Your task to perform on an android device: Clear the cart on newegg. Image 0: 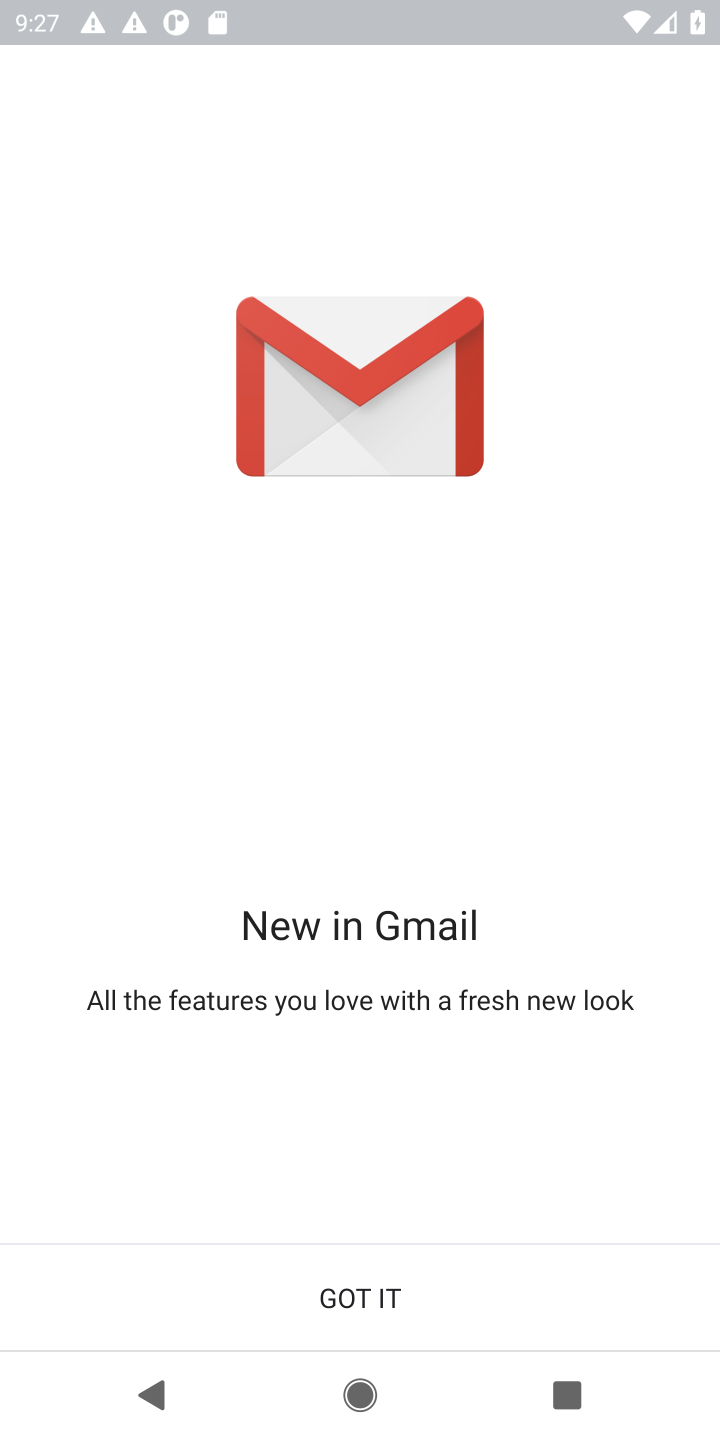
Step 0: press home button
Your task to perform on an android device: Clear the cart on newegg. Image 1: 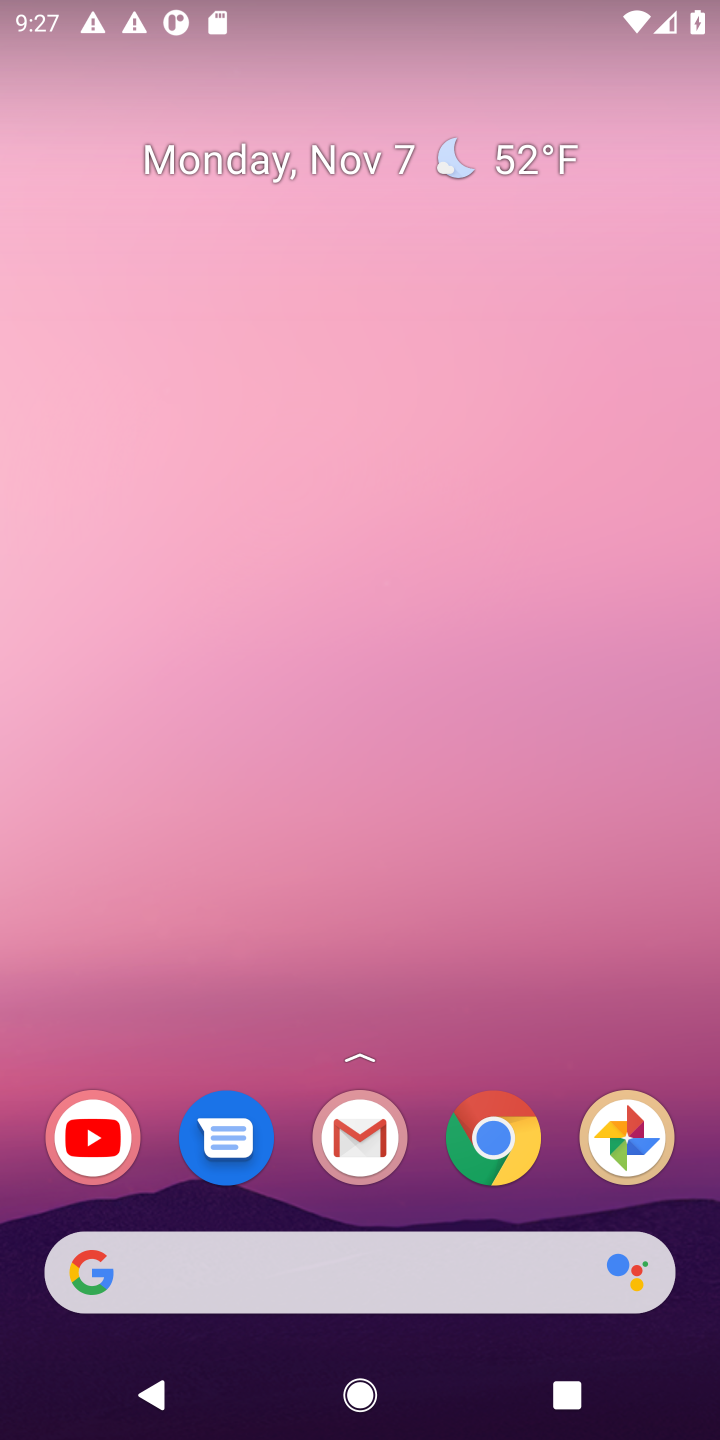
Step 1: click (484, 1128)
Your task to perform on an android device: Clear the cart on newegg. Image 2: 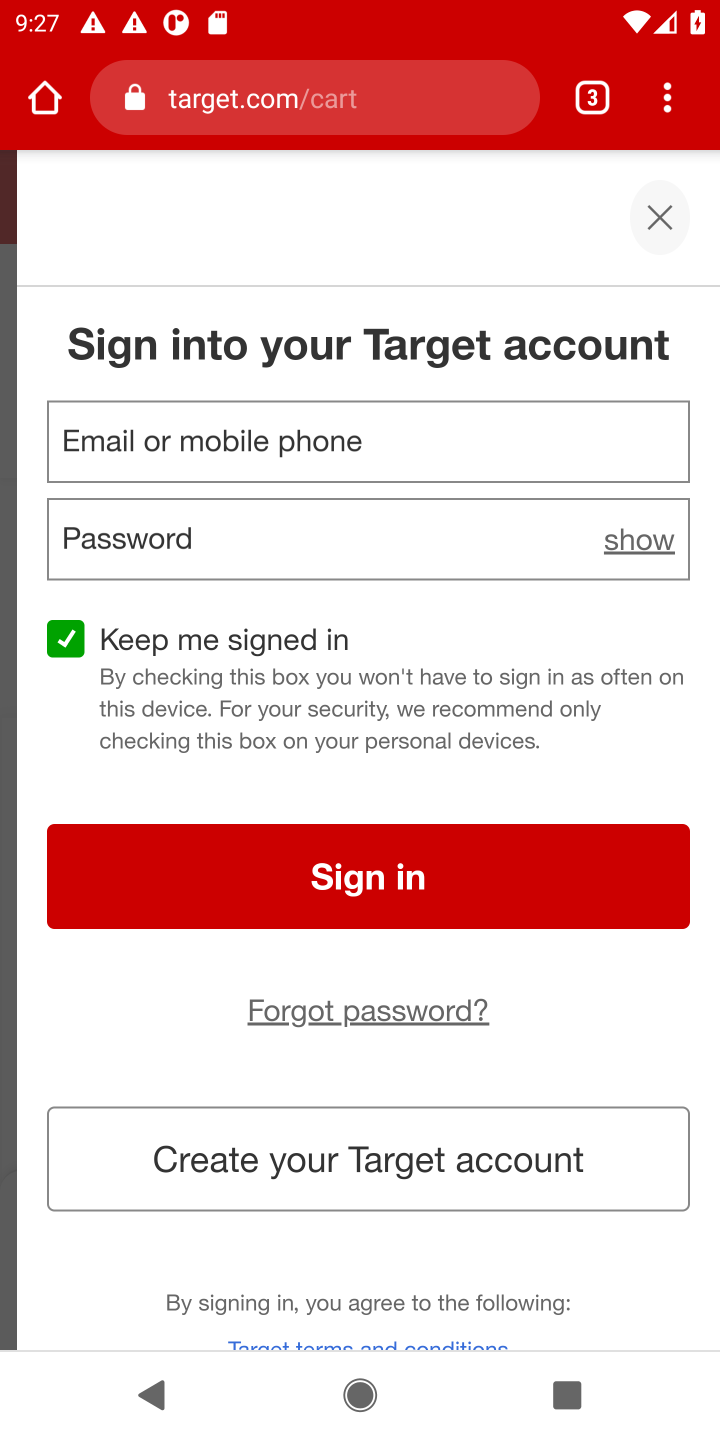
Step 2: click (586, 111)
Your task to perform on an android device: Clear the cart on newegg. Image 3: 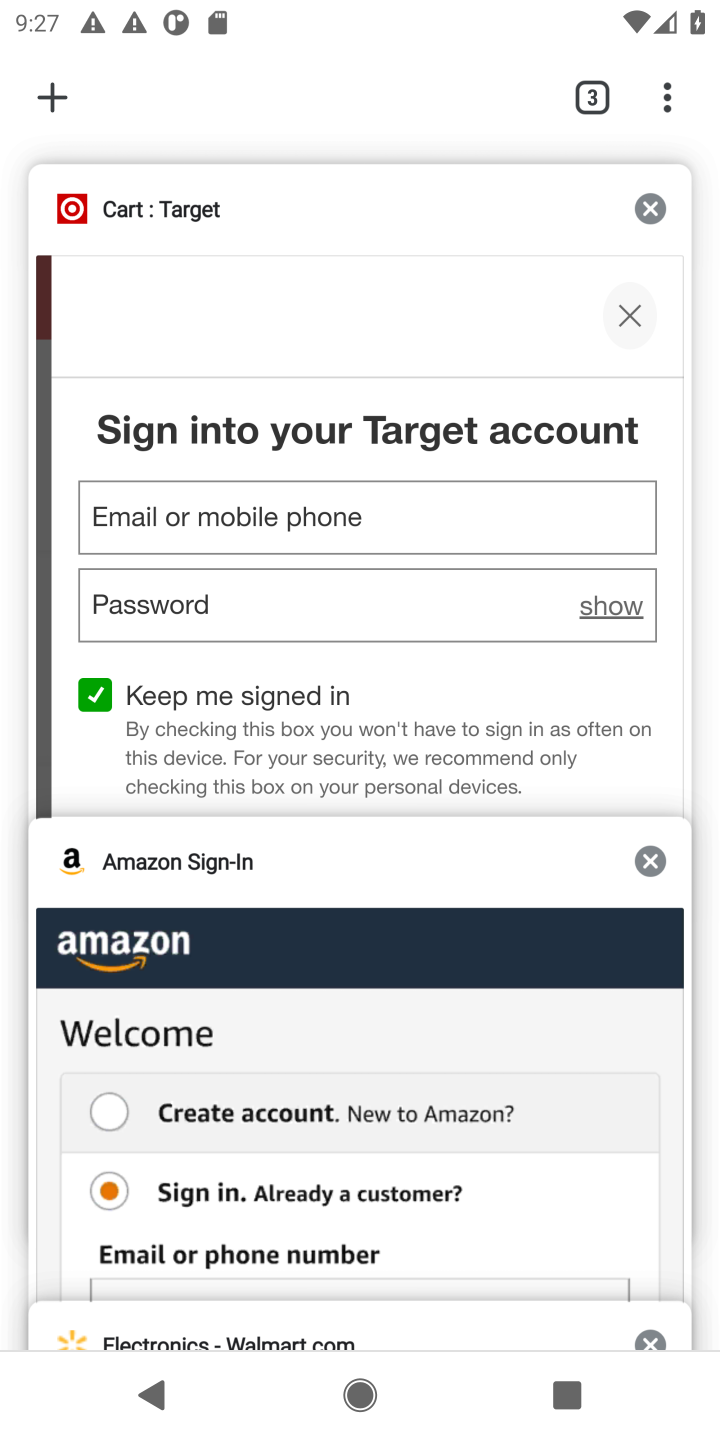
Step 3: click (46, 110)
Your task to perform on an android device: Clear the cart on newegg. Image 4: 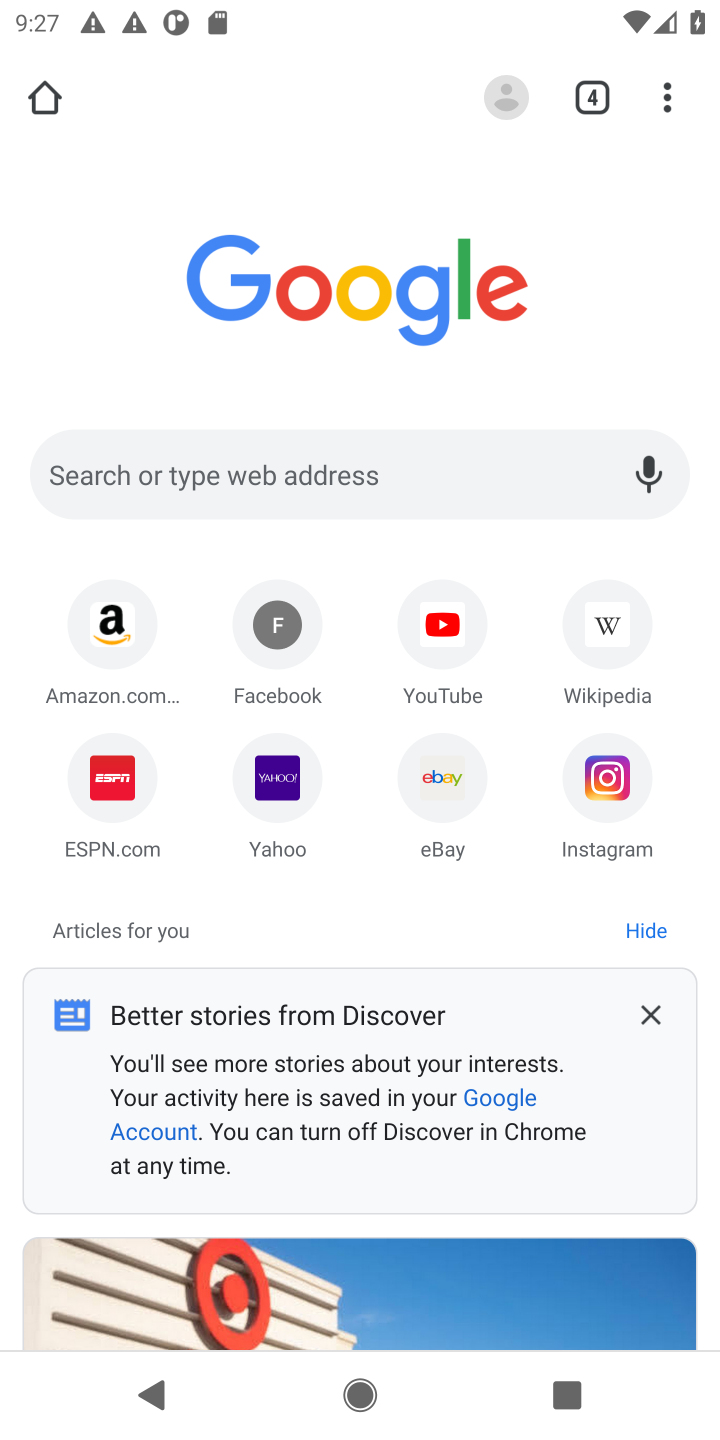
Step 4: click (383, 497)
Your task to perform on an android device: Clear the cart on newegg. Image 5: 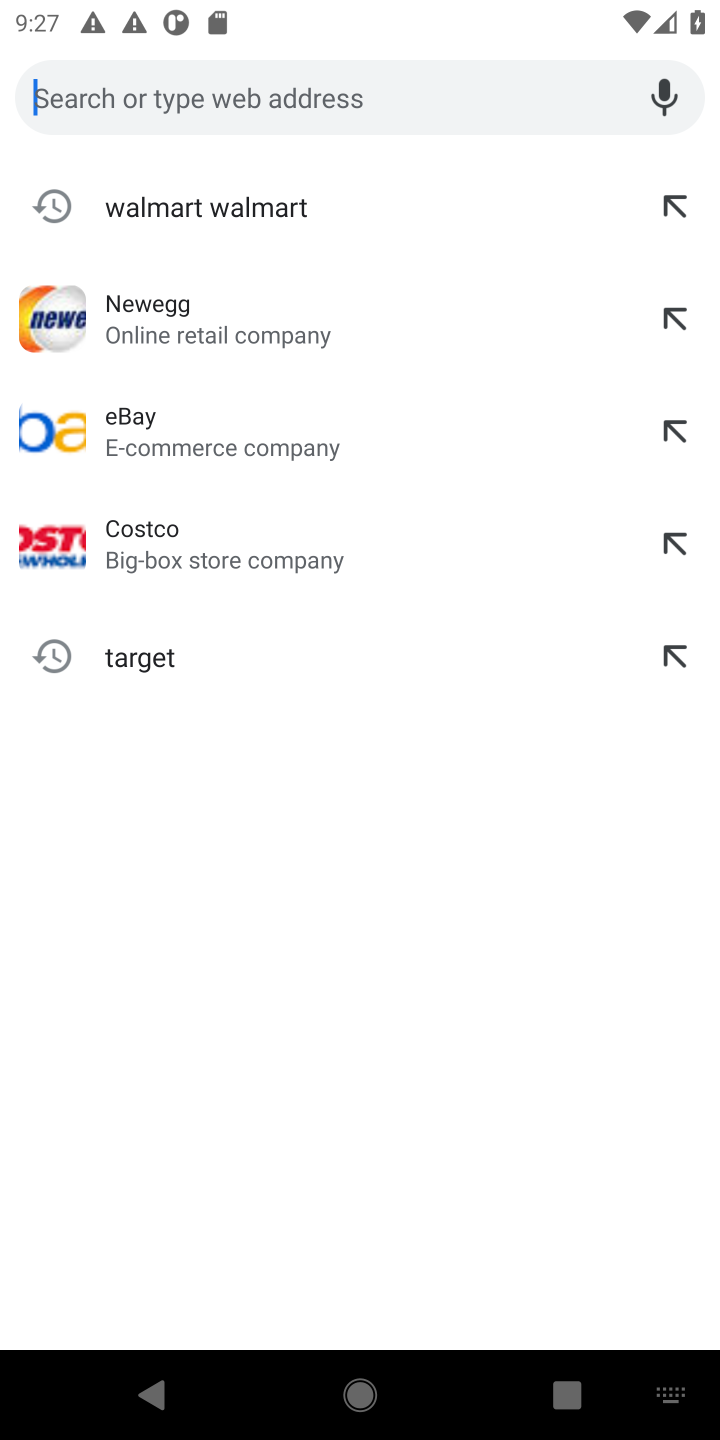
Step 5: type "newegg"
Your task to perform on an android device: Clear the cart on newegg. Image 6: 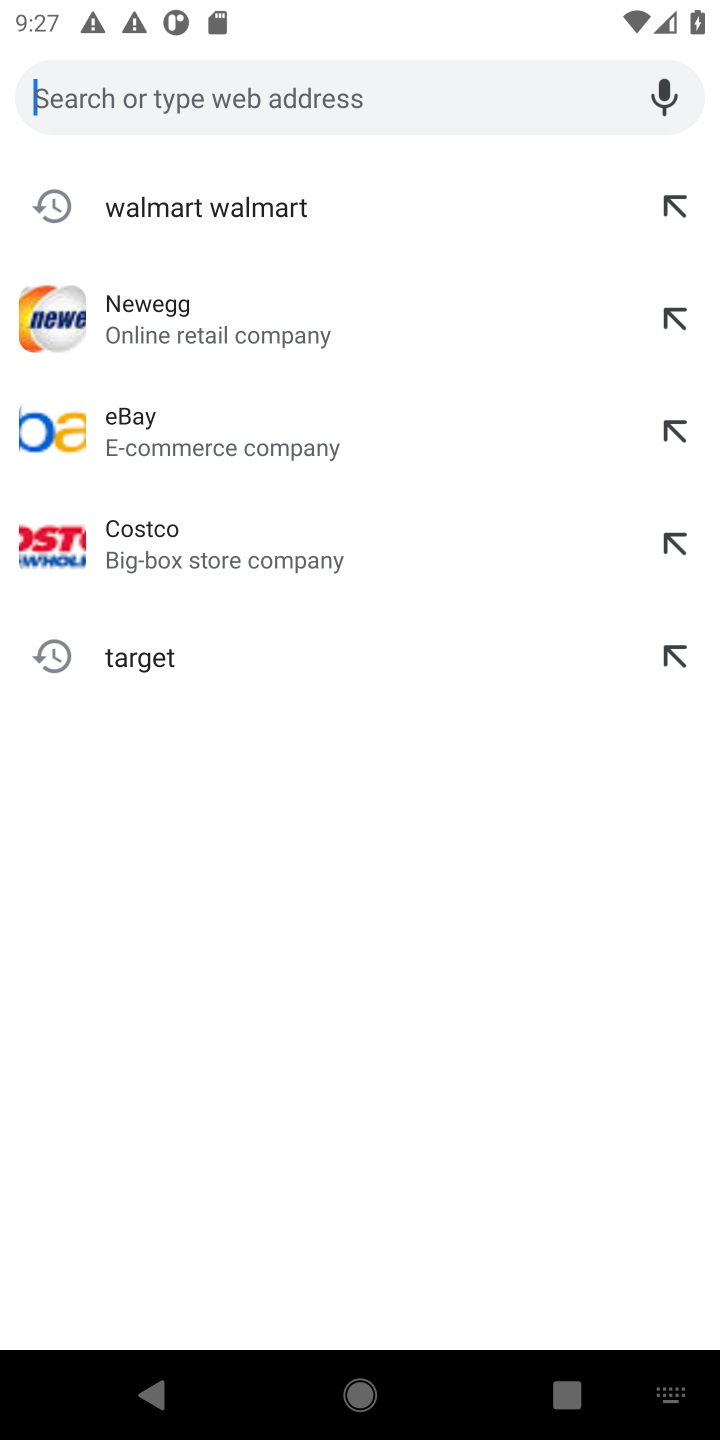
Step 6: click (213, 322)
Your task to perform on an android device: Clear the cart on newegg. Image 7: 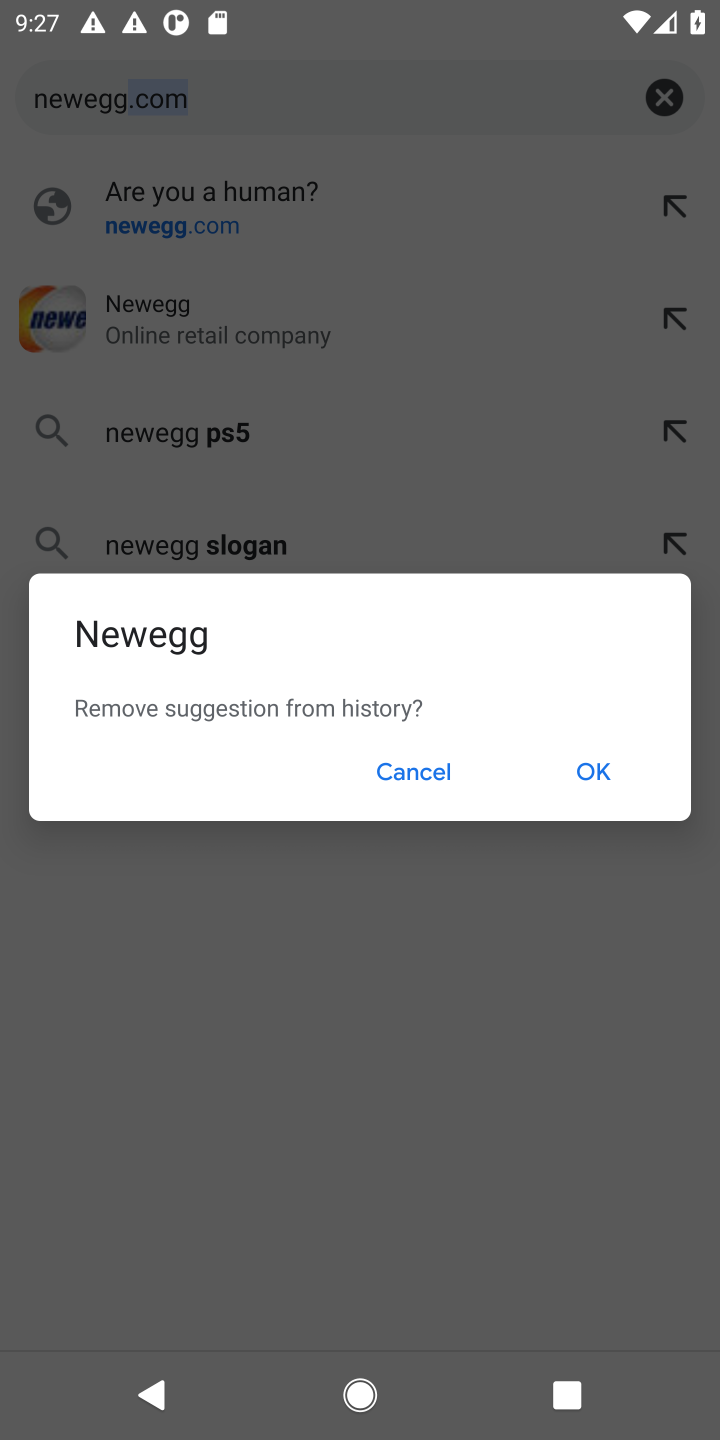
Step 7: click (599, 782)
Your task to perform on an android device: Clear the cart on newegg. Image 8: 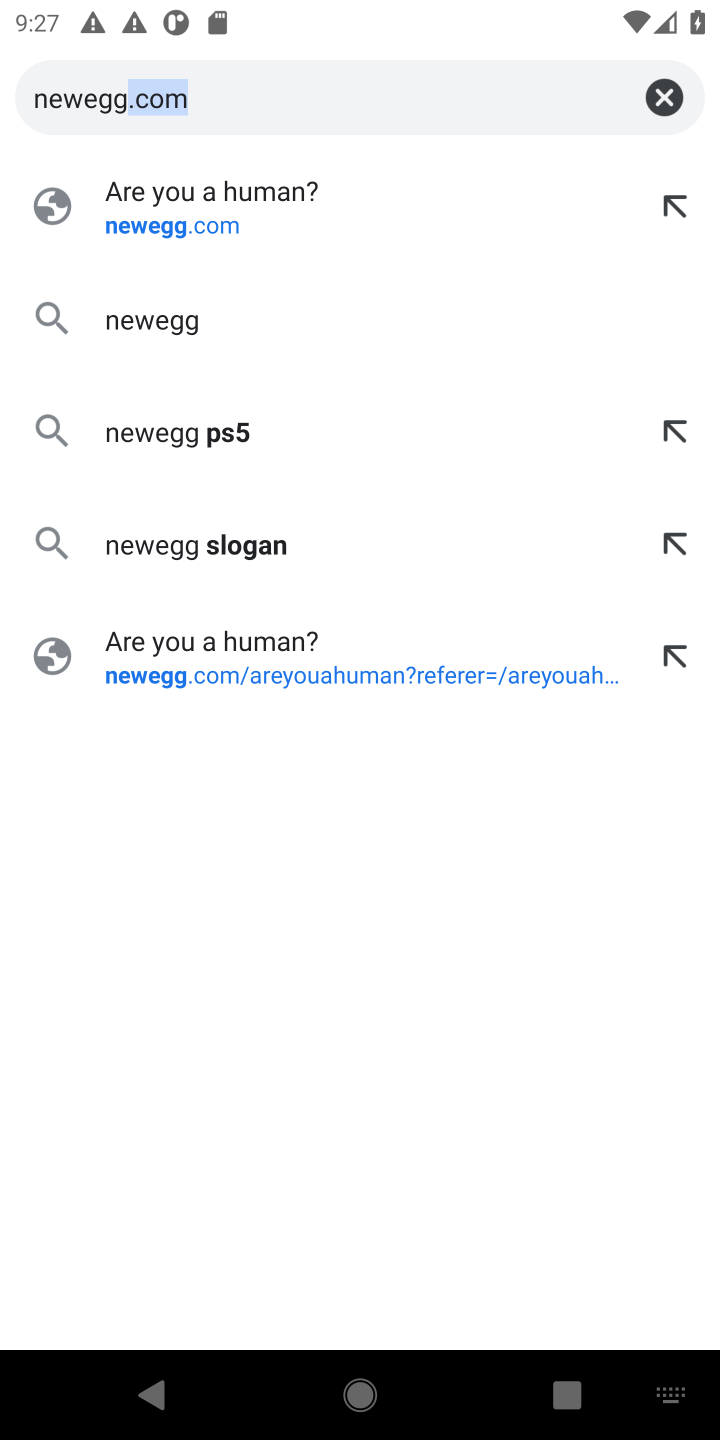
Step 8: click (598, 769)
Your task to perform on an android device: Clear the cart on newegg. Image 9: 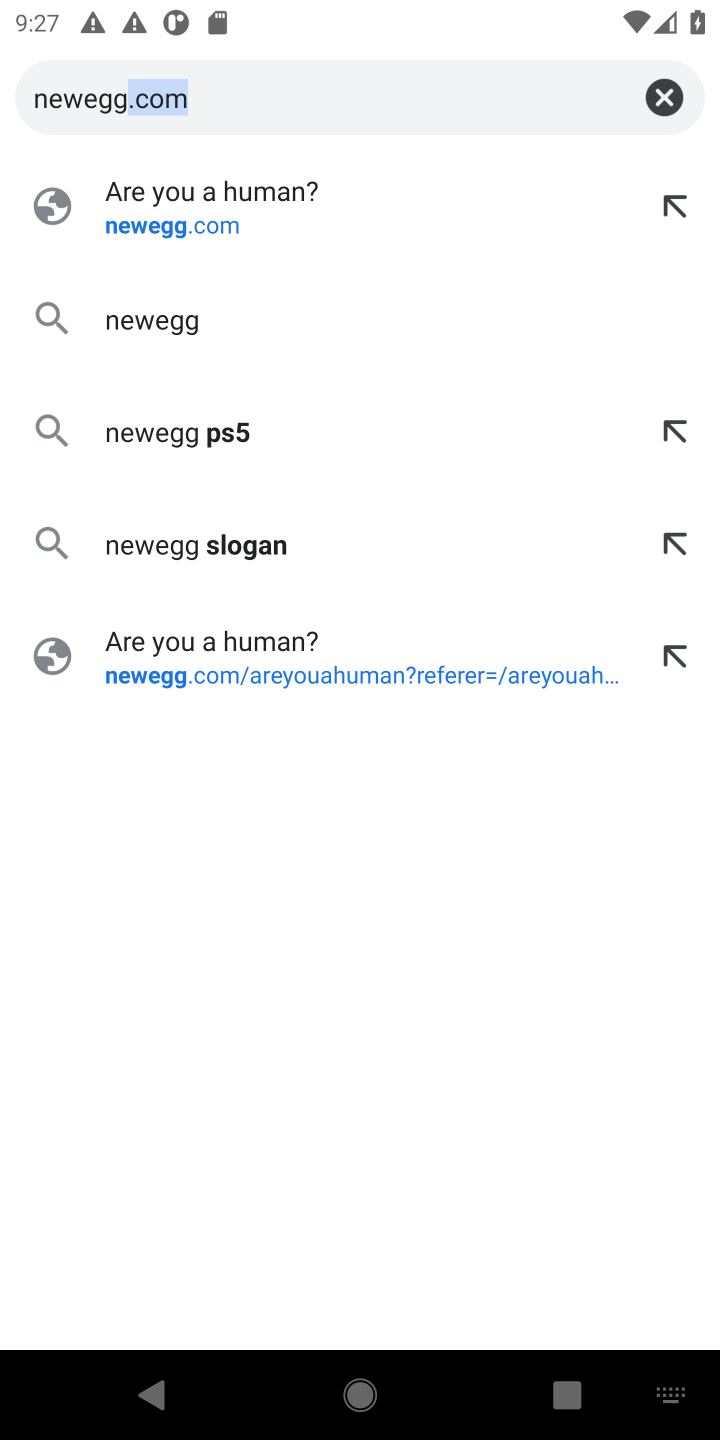
Step 9: click (156, 312)
Your task to perform on an android device: Clear the cart on newegg. Image 10: 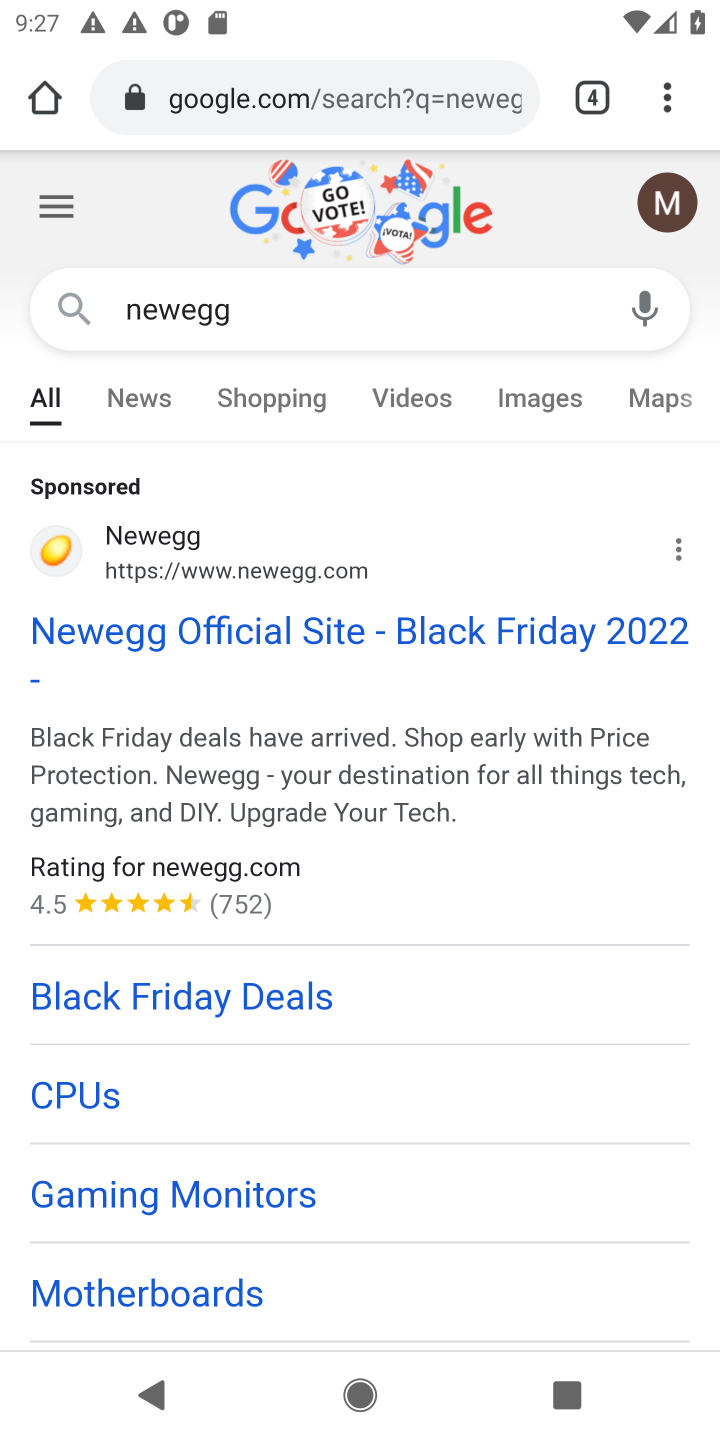
Step 10: click (319, 627)
Your task to perform on an android device: Clear the cart on newegg. Image 11: 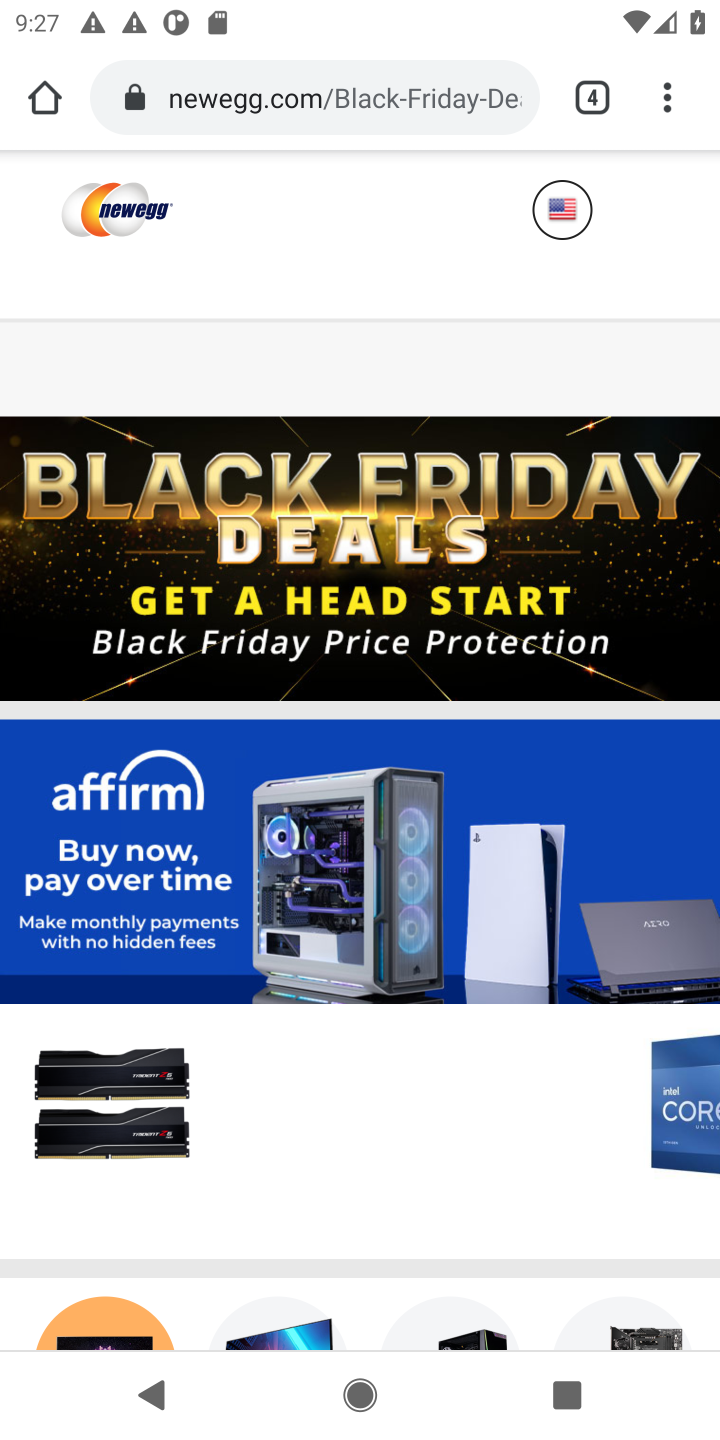
Step 11: task complete